Your task to perform on an android device: open app "Adobe Acrobat Reader" (install if not already installed) Image 0: 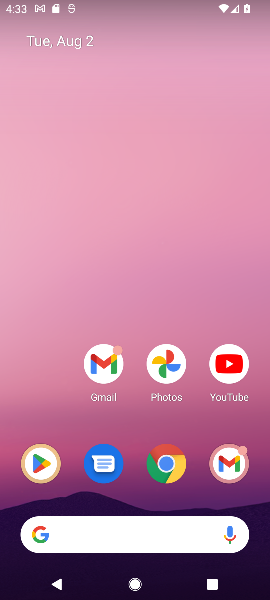
Step 0: click (45, 460)
Your task to perform on an android device: open app "Adobe Acrobat Reader" (install if not already installed) Image 1: 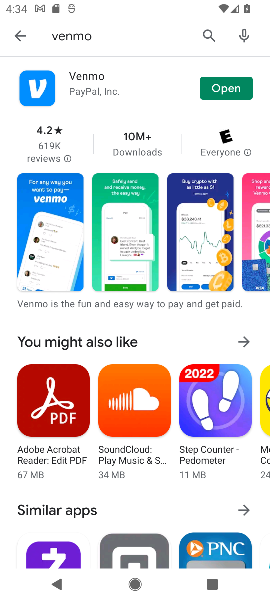
Step 1: click (207, 35)
Your task to perform on an android device: open app "Adobe Acrobat Reader" (install if not already installed) Image 2: 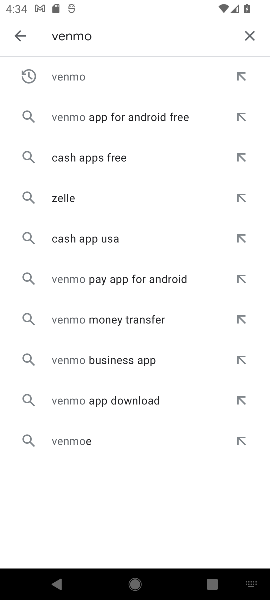
Step 2: click (251, 35)
Your task to perform on an android device: open app "Adobe Acrobat Reader" (install if not already installed) Image 3: 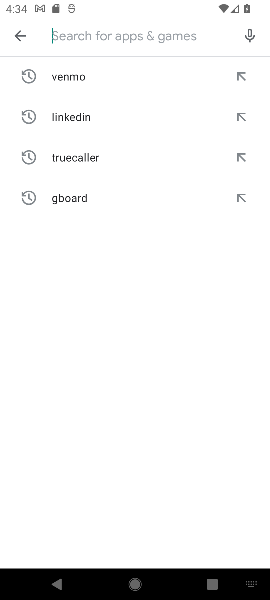
Step 3: type "Adobe Acrobat Reader"
Your task to perform on an android device: open app "Adobe Acrobat Reader" (install if not already installed) Image 4: 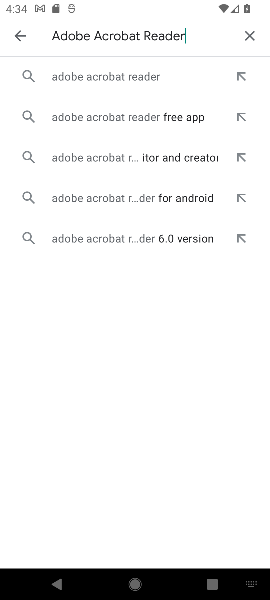
Step 4: click (108, 79)
Your task to perform on an android device: open app "Adobe Acrobat Reader" (install if not already installed) Image 5: 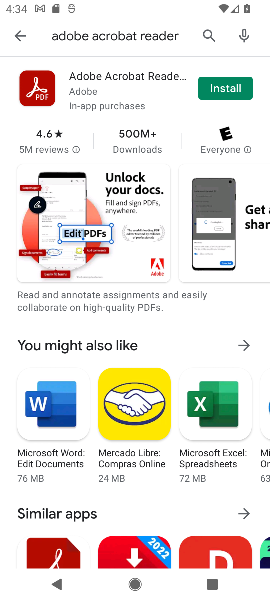
Step 5: click (226, 87)
Your task to perform on an android device: open app "Adobe Acrobat Reader" (install if not already installed) Image 6: 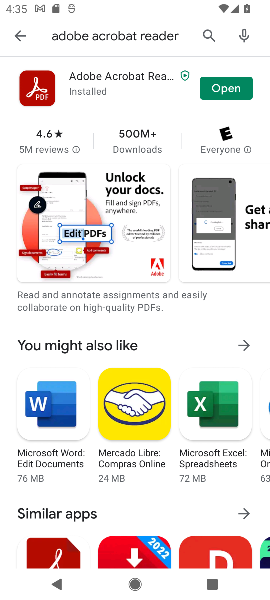
Step 6: click (228, 82)
Your task to perform on an android device: open app "Adobe Acrobat Reader" (install if not already installed) Image 7: 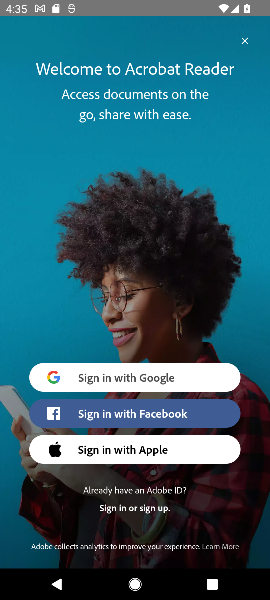
Step 7: task complete